Your task to perform on an android device: Open the phone app and click the voicemail tab. Image 0: 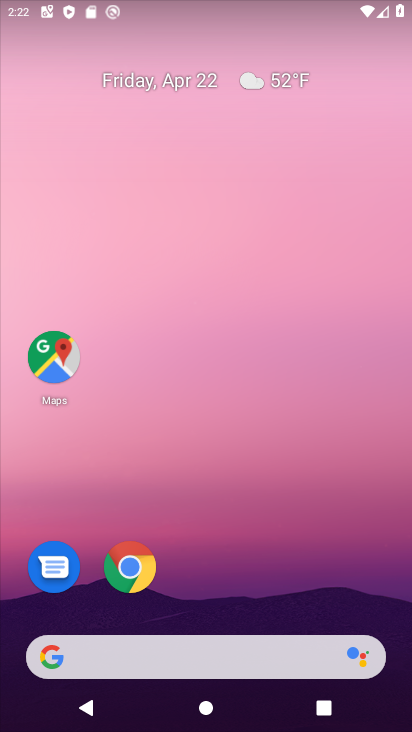
Step 0: click (141, 573)
Your task to perform on an android device: Open the phone app and click the voicemail tab. Image 1: 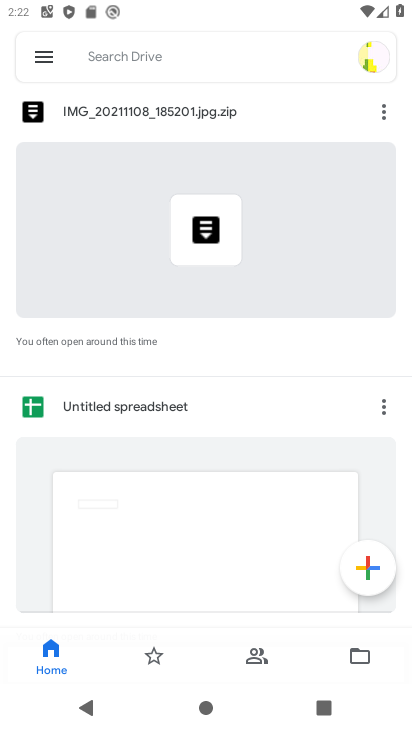
Step 1: press home button
Your task to perform on an android device: Open the phone app and click the voicemail tab. Image 2: 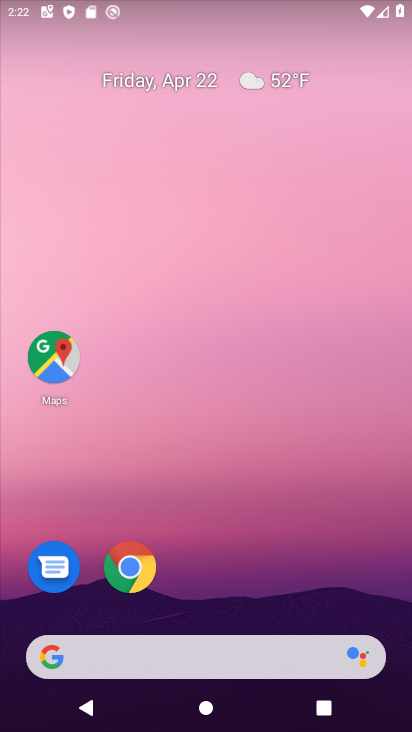
Step 2: drag from (214, 487) to (183, 64)
Your task to perform on an android device: Open the phone app and click the voicemail tab. Image 3: 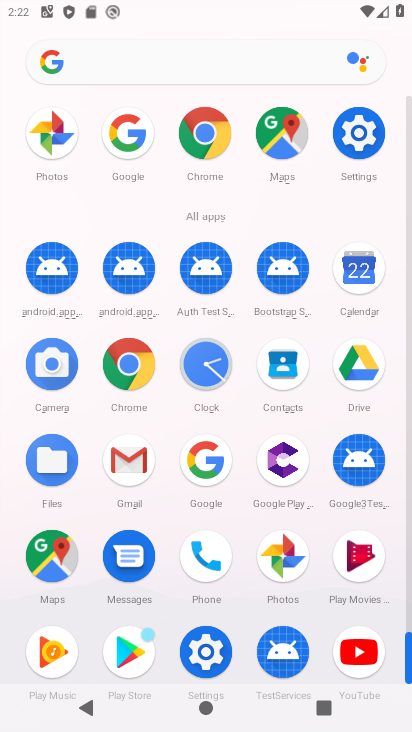
Step 3: click (208, 555)
Your task to perform on an android device: Open the phone app and click the voicemail tab. Image 4: 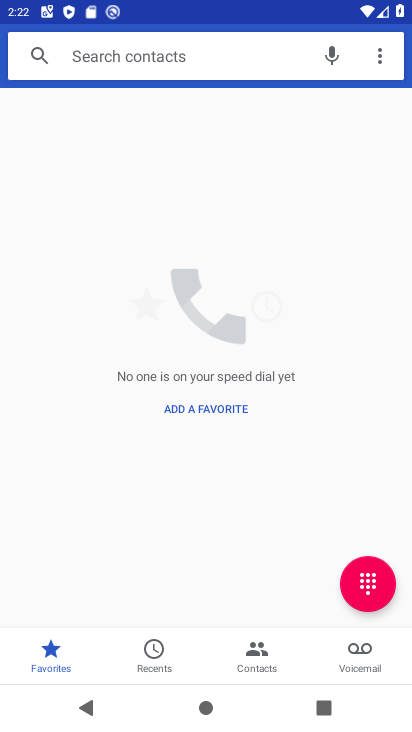
Step 4: click (368, 657)
Your task to perform on an android device: Open the phone app and click the voicemail tab. Image 5: 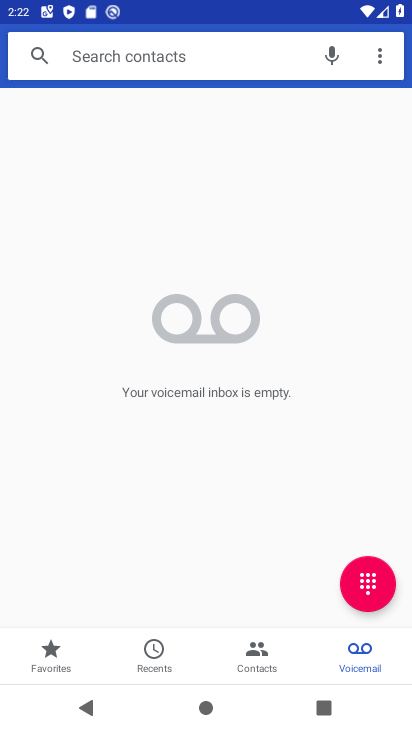
Step 5: task complete